Your task to perform on an android device: Go to display settings Image 0: 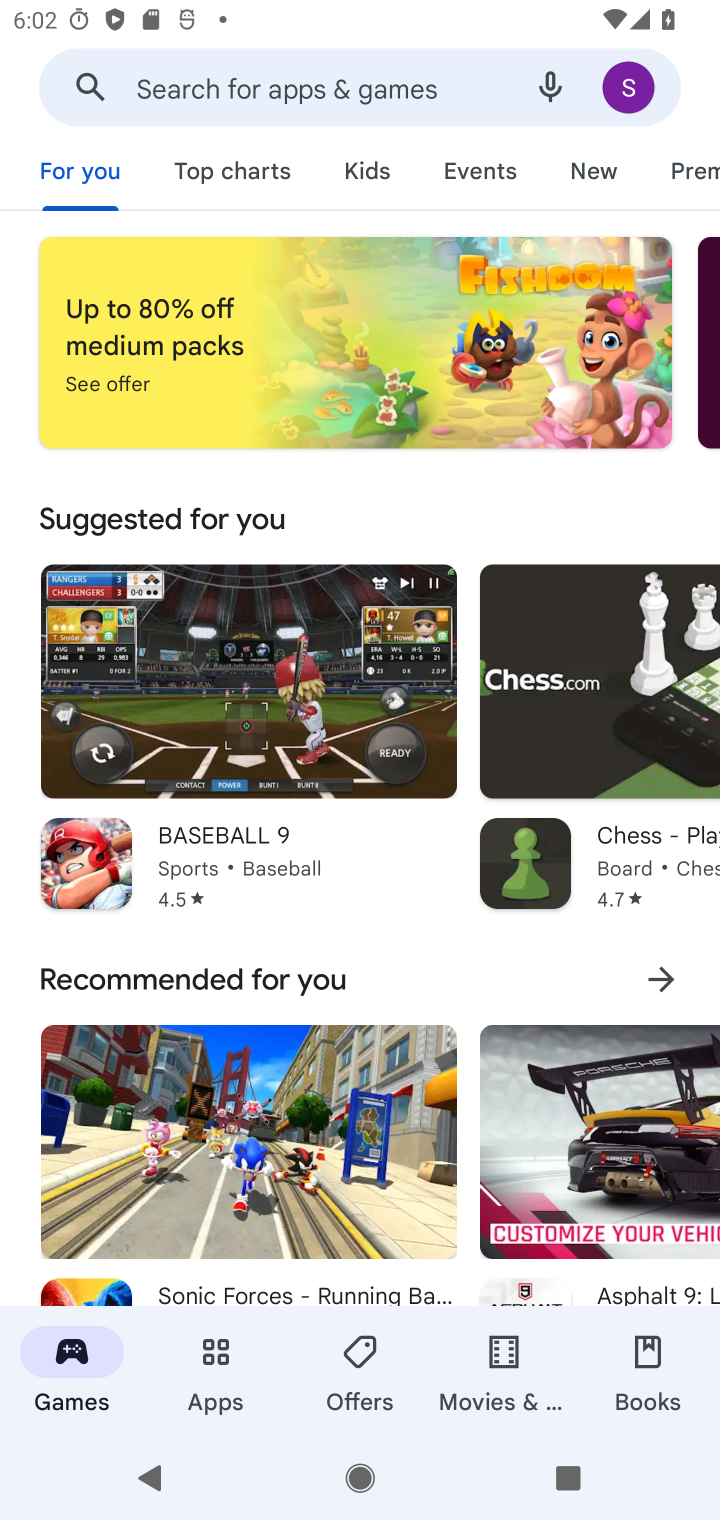
Step 0: press home button
Your task to perform on an android device: Go to display settings Image 1: 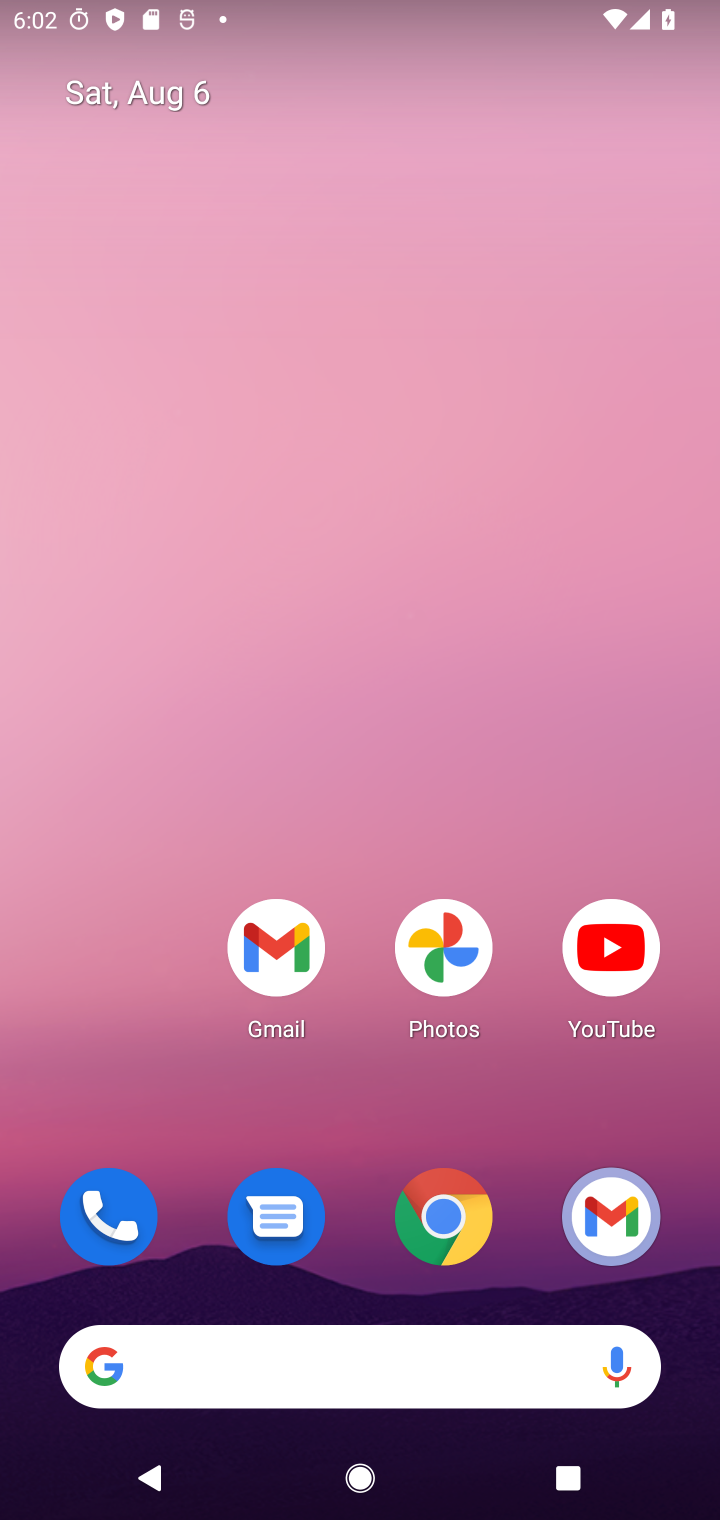
Step 1: drag from (389, 983) to (587, 272)
Your task to perform on an android device: Go to display settings Image 2: 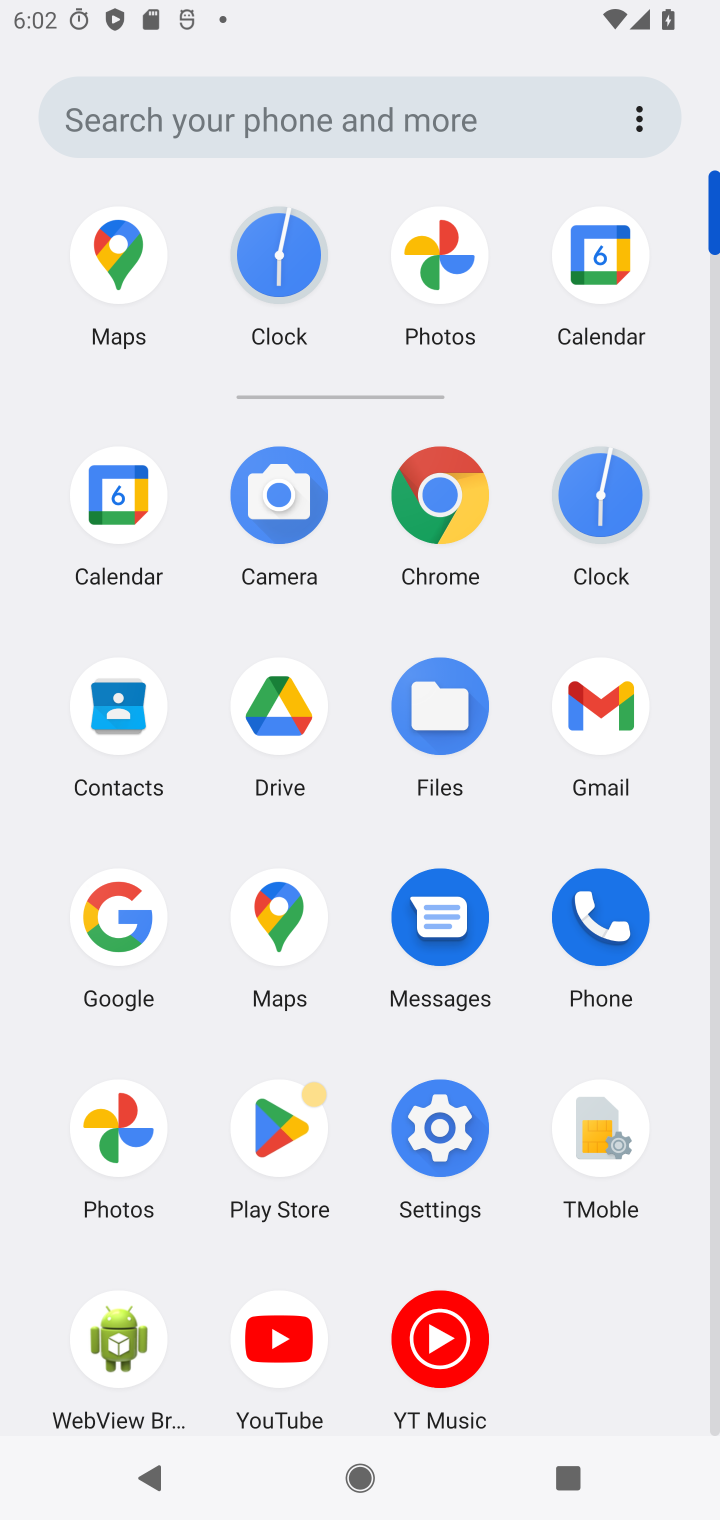
Step 2: click (428, 1138)
Your task to perform on an android device: Go to display settings Image 3: 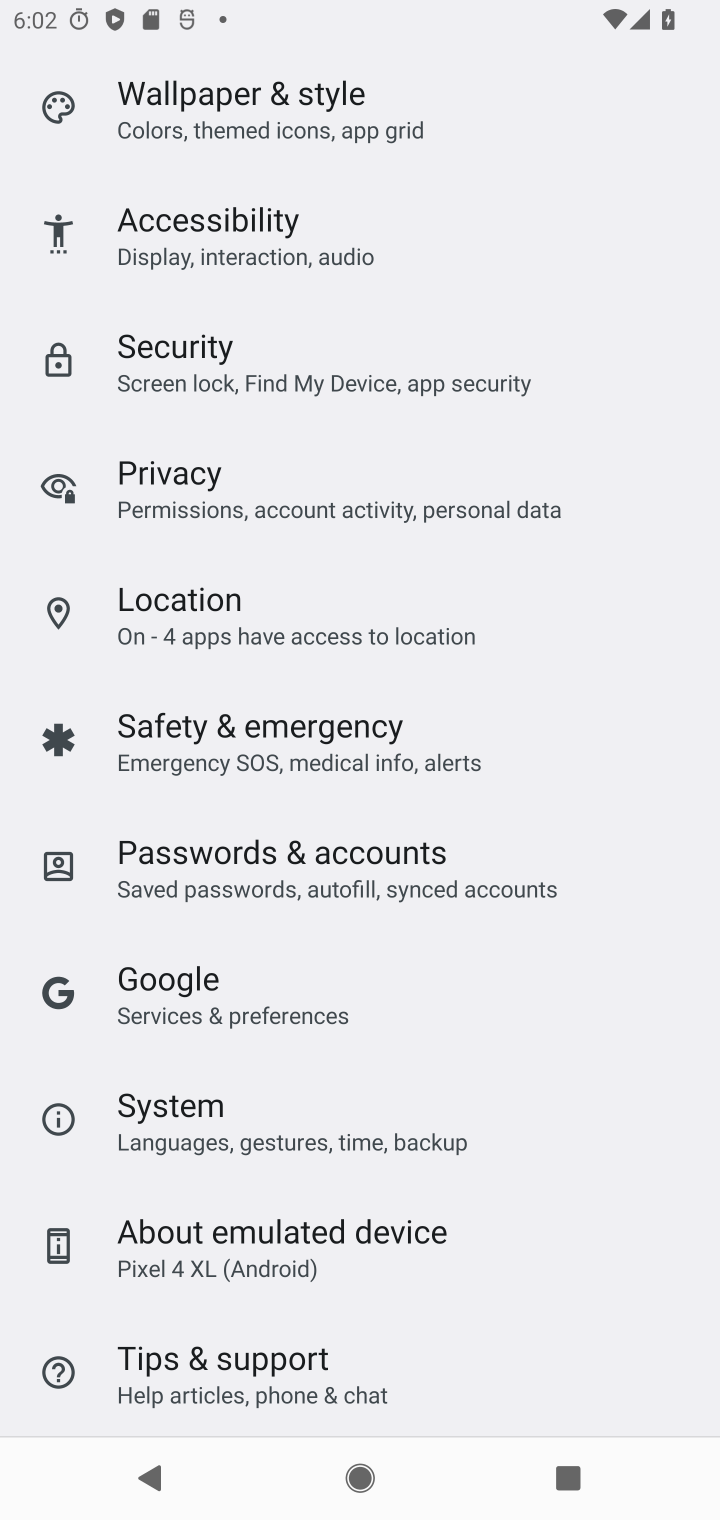
Step 3: drag from (419, 172) to (340, 866)
Your task to perform on an android device: Go to display settings Image 4: 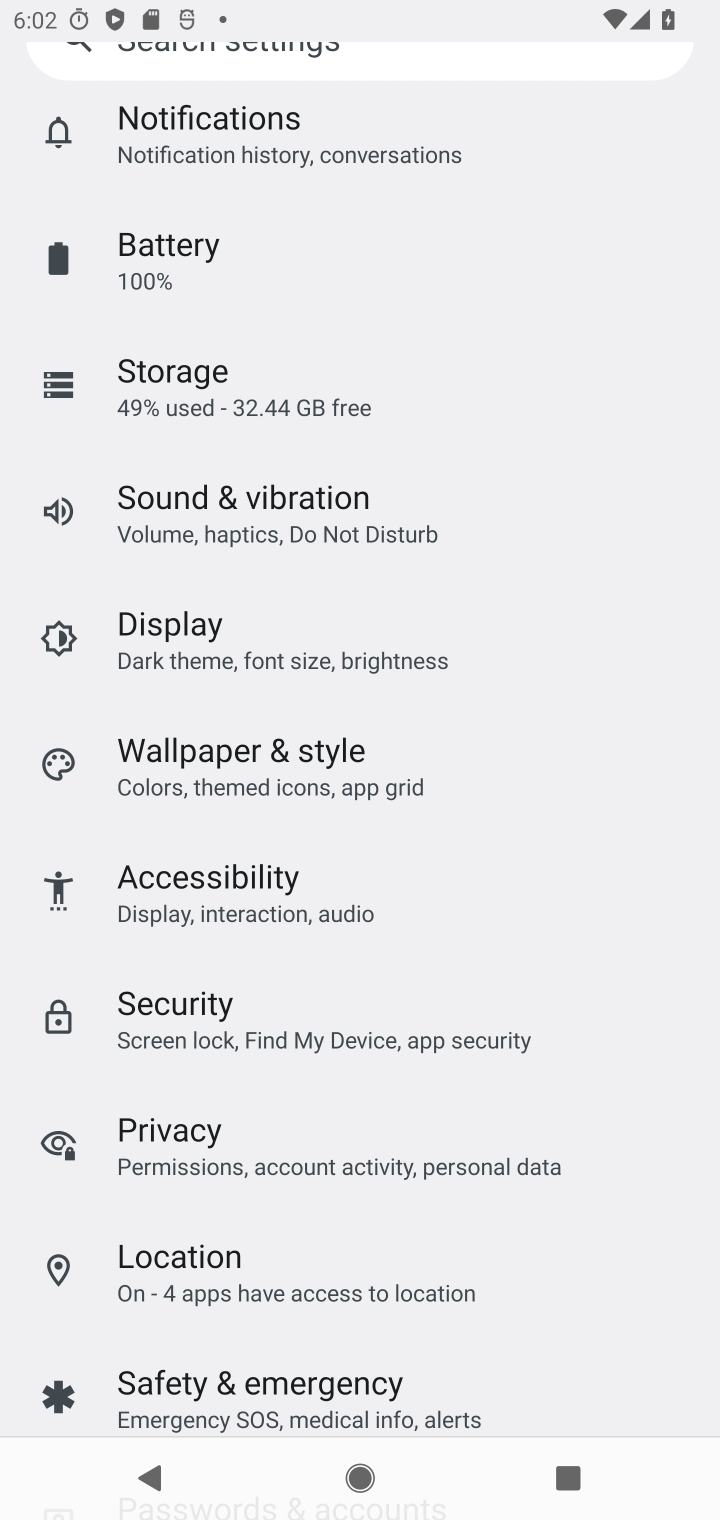
Step 4: drag from (507, 288) to (515, 497)
Your task to perform on an android device: Go to display settings Image 5: 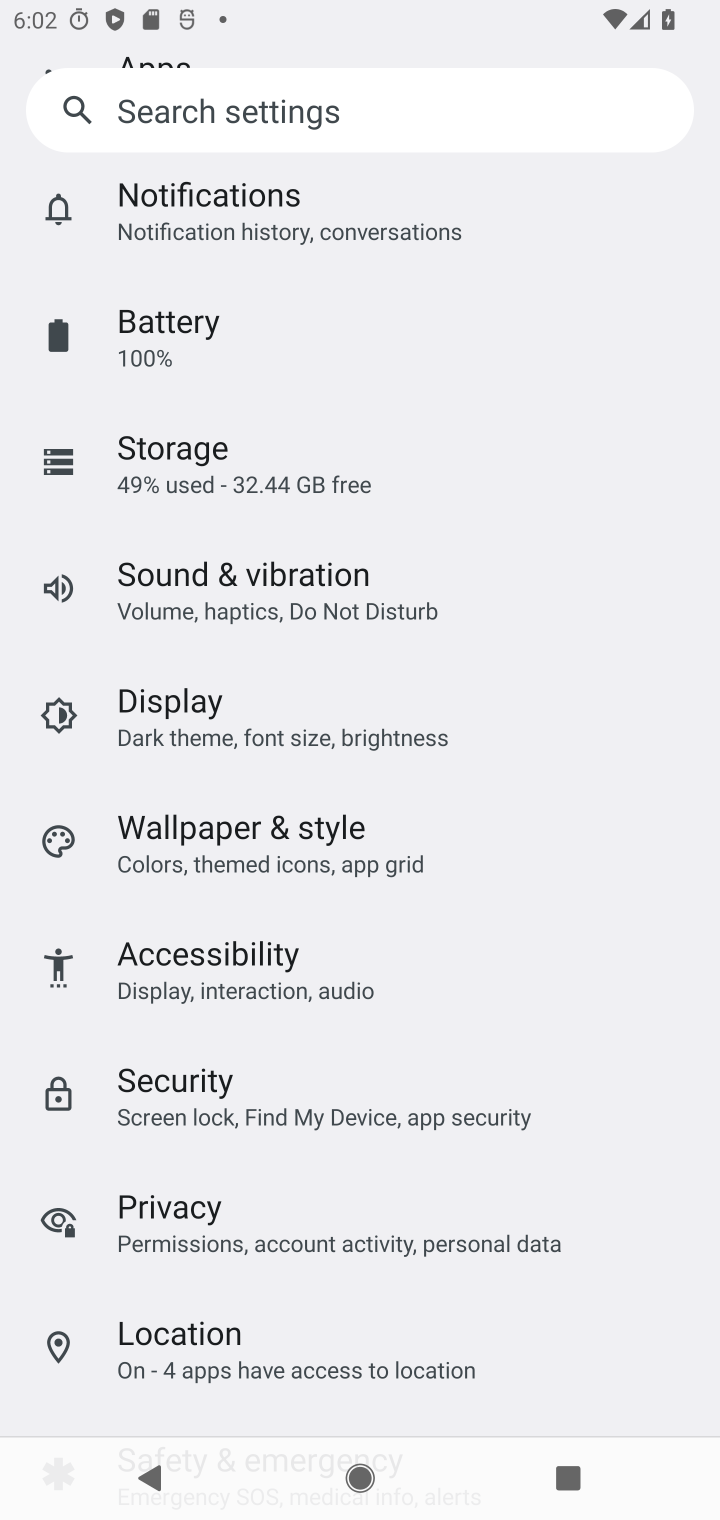
Step 5: click (207, 724)
Your task to perform on an android device: Go to display settings Image 6: 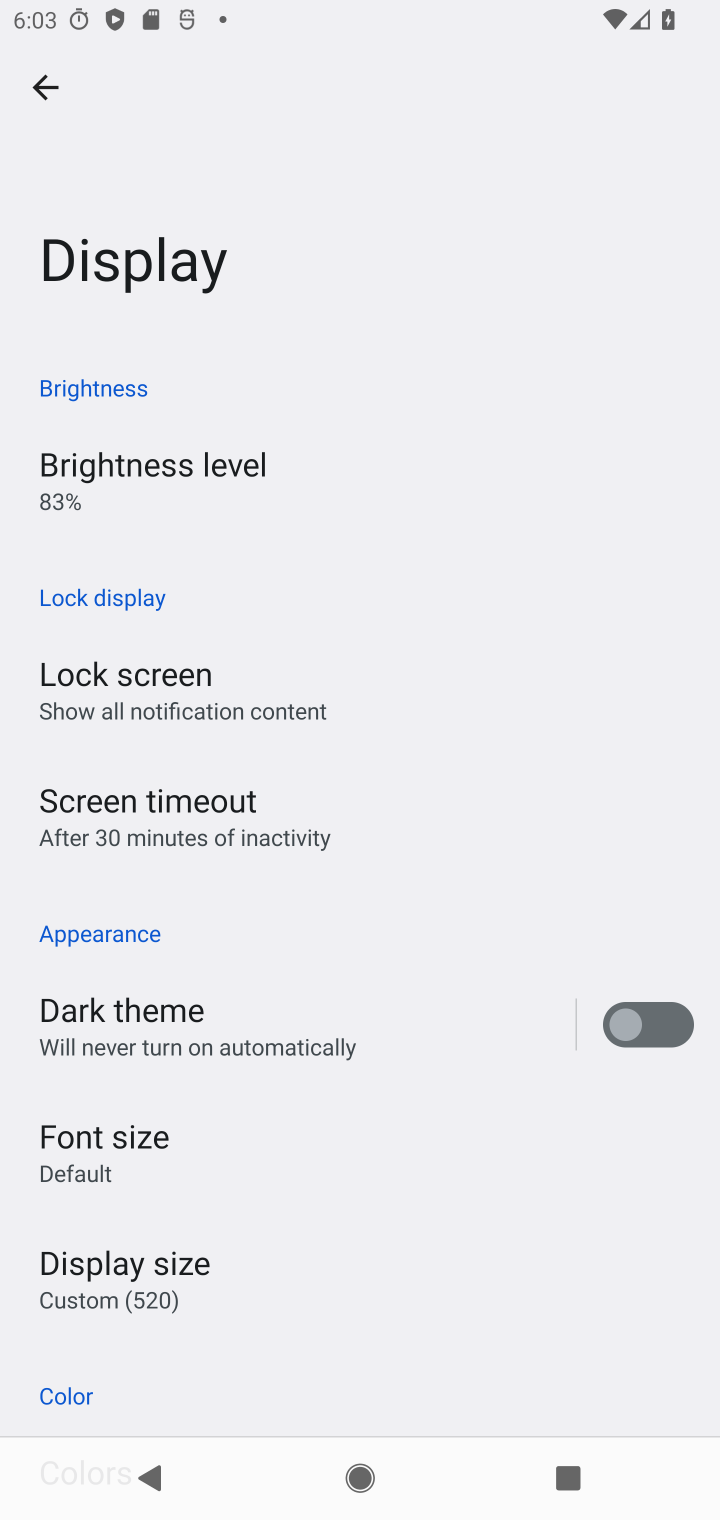
Step 6: press home button
Your task to perform on an android device: Go to display settings Image 7: 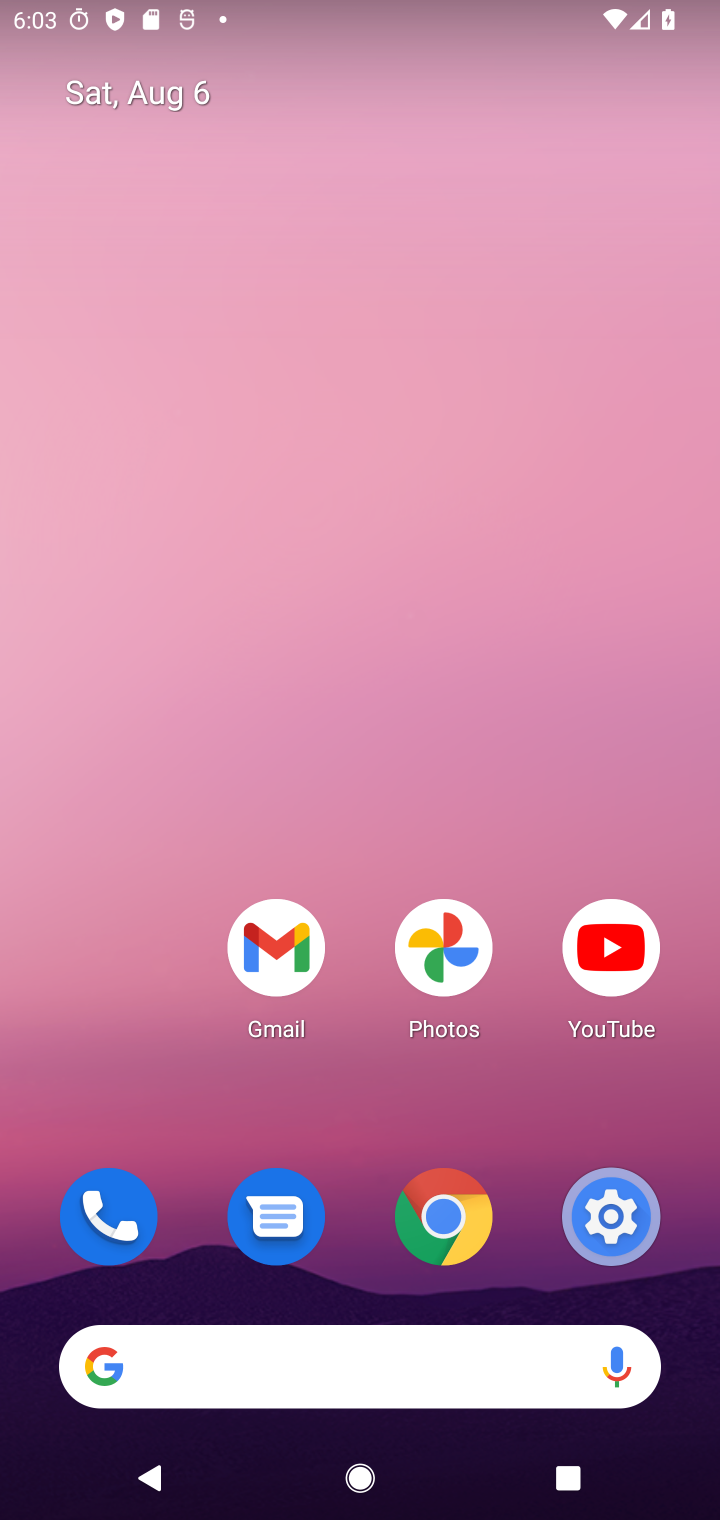
Step 7: drag from (363, 1120) to (421, 143)
Your task to perform on an android device: Go to display settings Image 8: 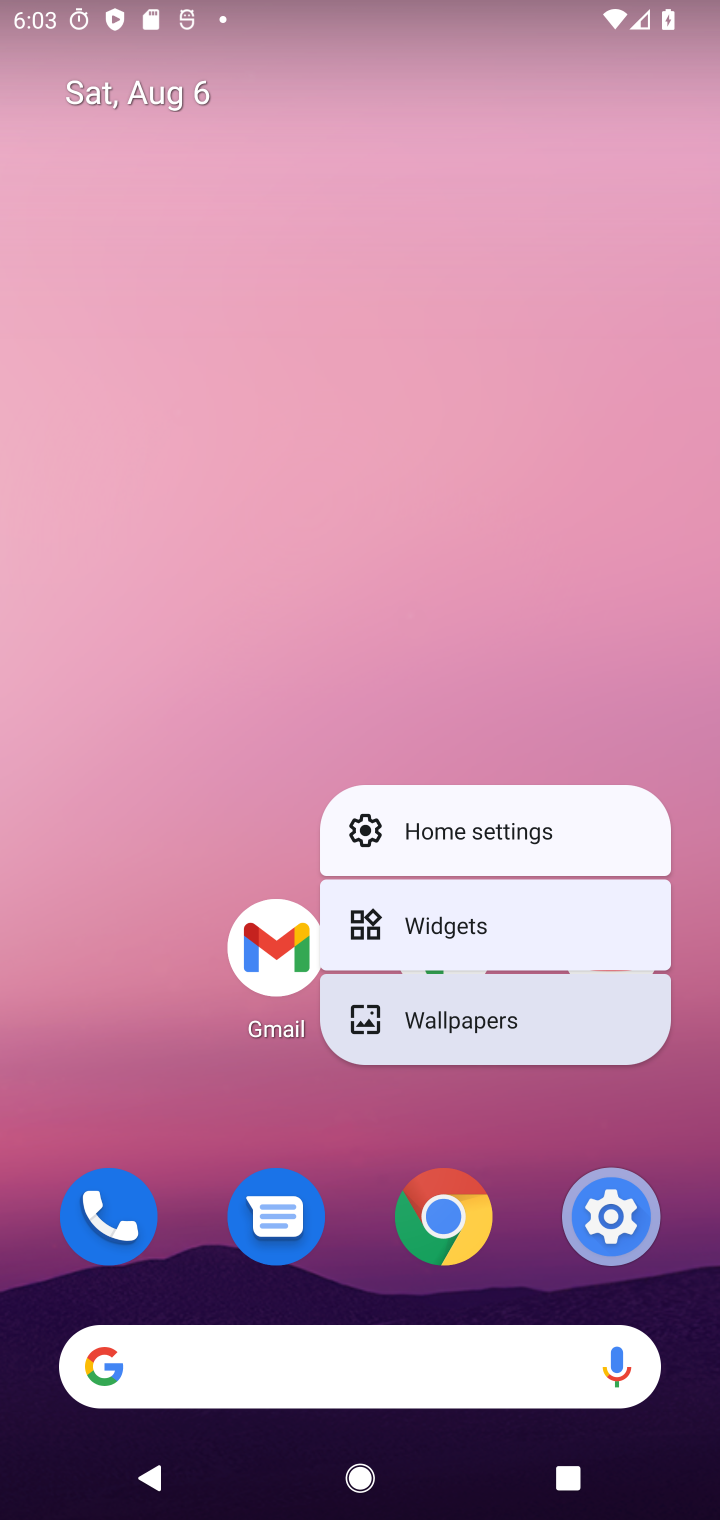
Step 8: click (349, 324)
Your task to perform on an android device: Go to display settings Image 9: 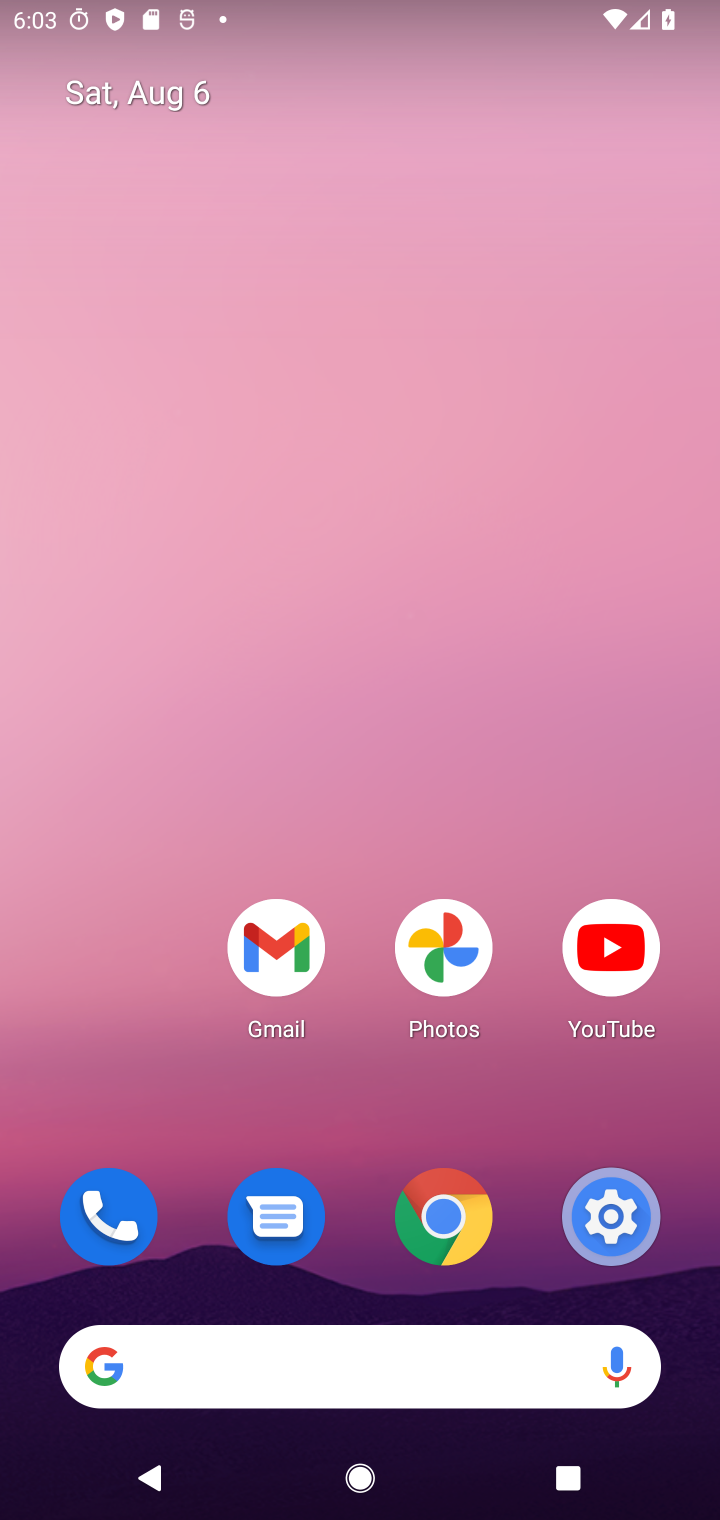
Step 9: drag from (373, 1108) to (469, 225)
Your task to perform on an android device: Go to display settings Image 10: 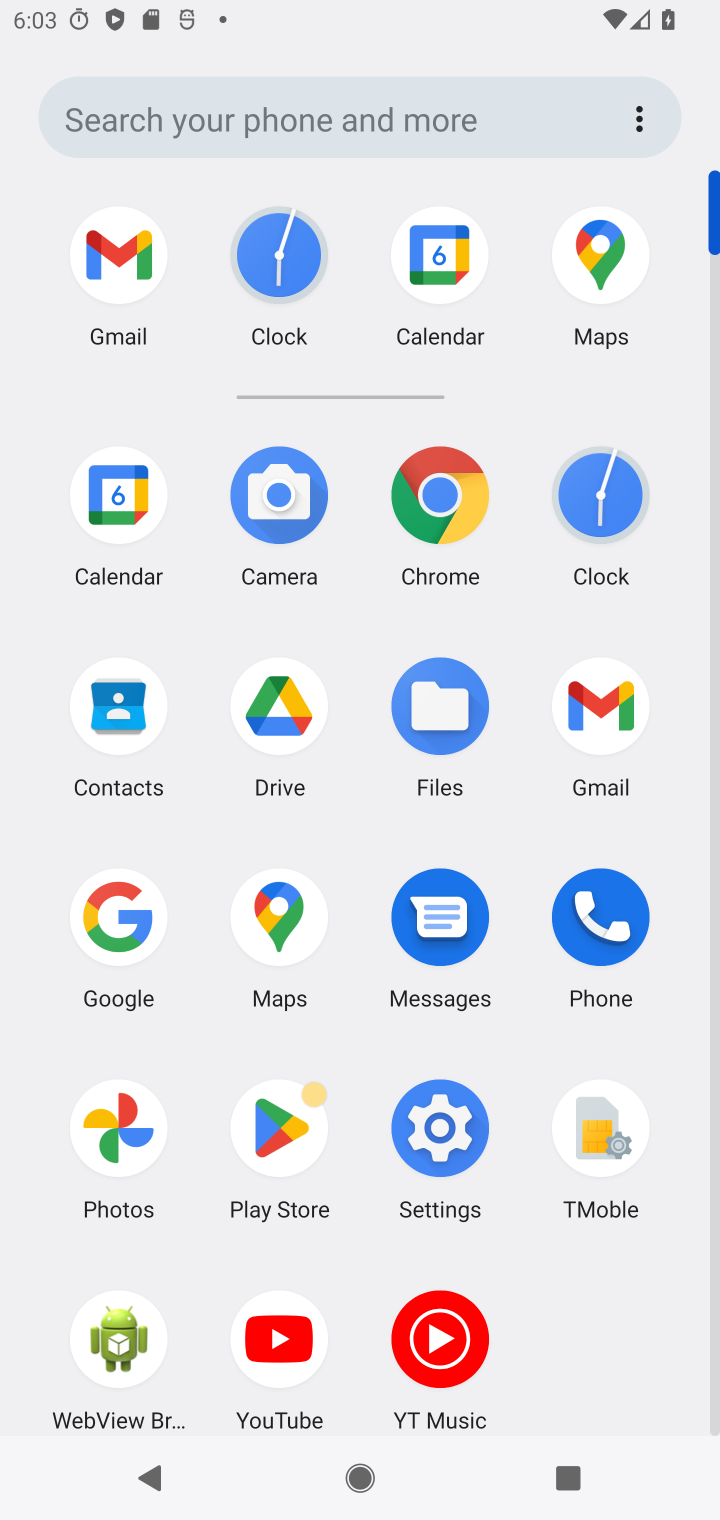
Step 10: click (433, 1117)
Your task to perform on an android device: Go to display settings Image 11: 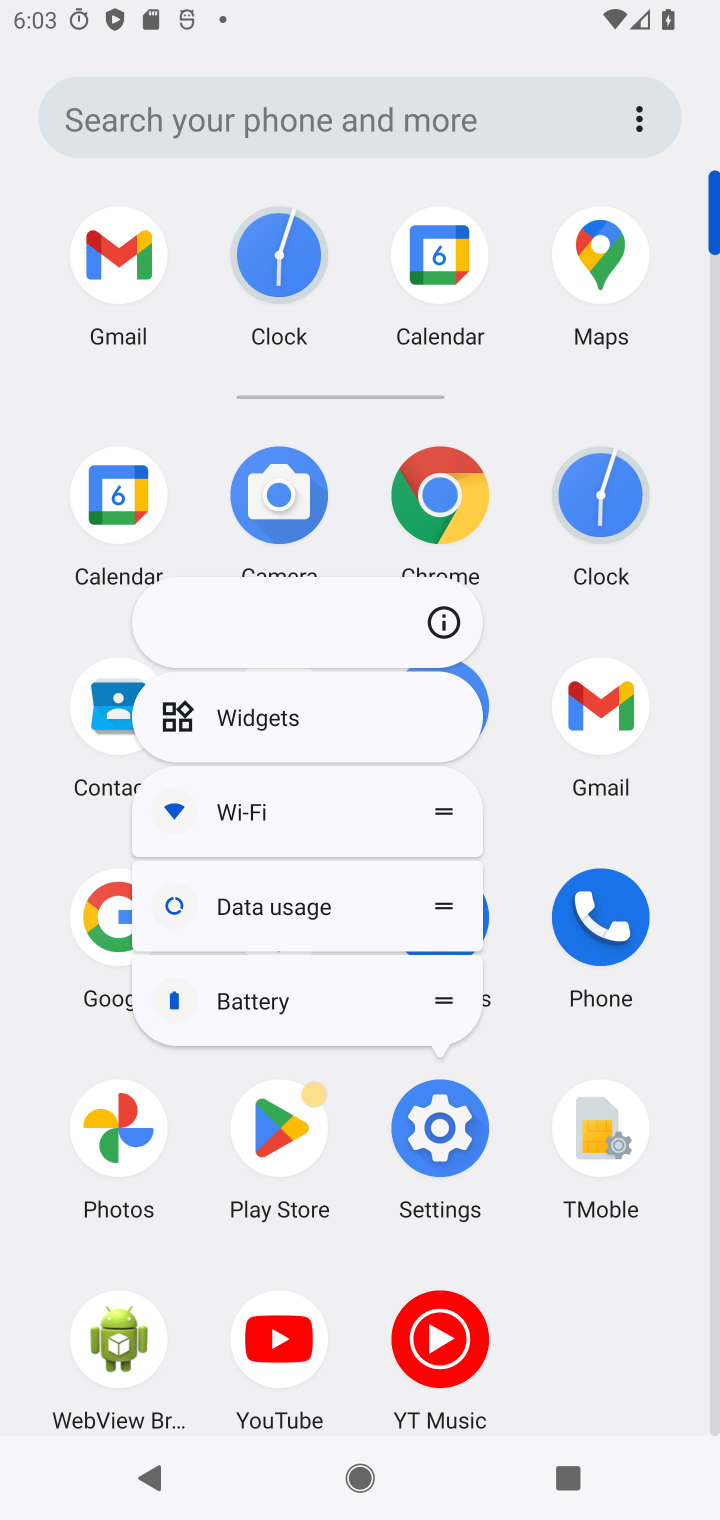
Step 11: click (439, 1130)
Your task to perform on an android device: Go to display settings Image 12: 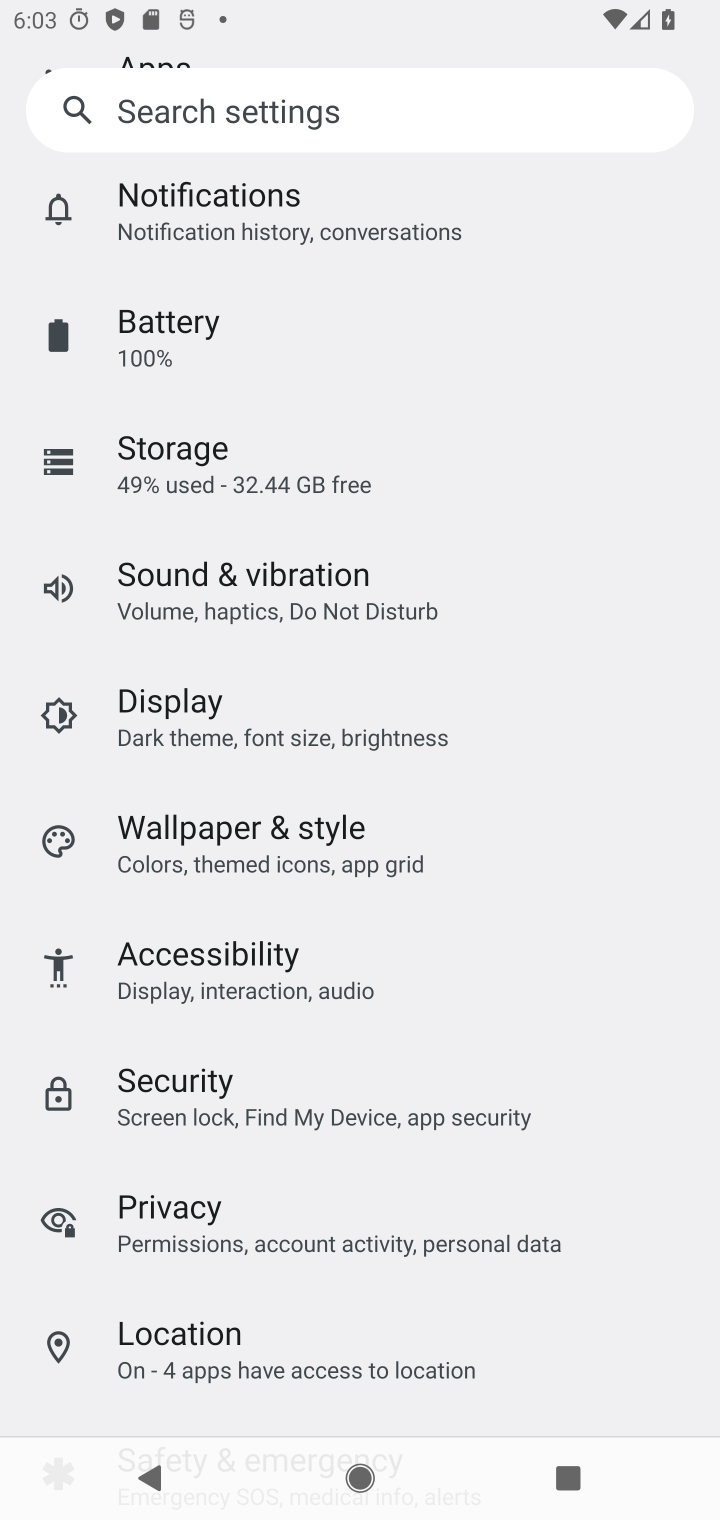
Step 12: click (303, 696)
Your task to perform on an android device: Go to display settings Image 13: 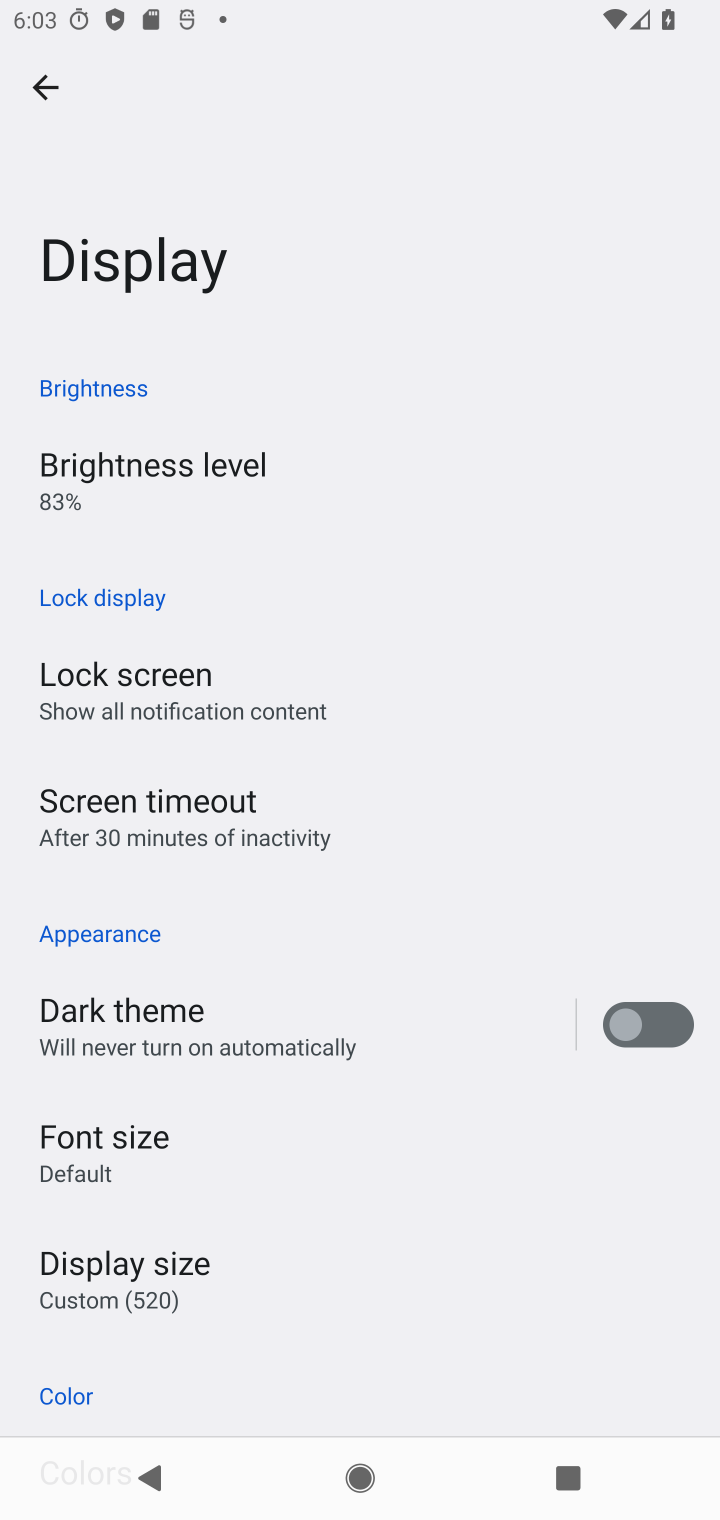
Step 13: task complete